Your task to perform on an android device: Search for Italian restaurants on Maps Image 0: 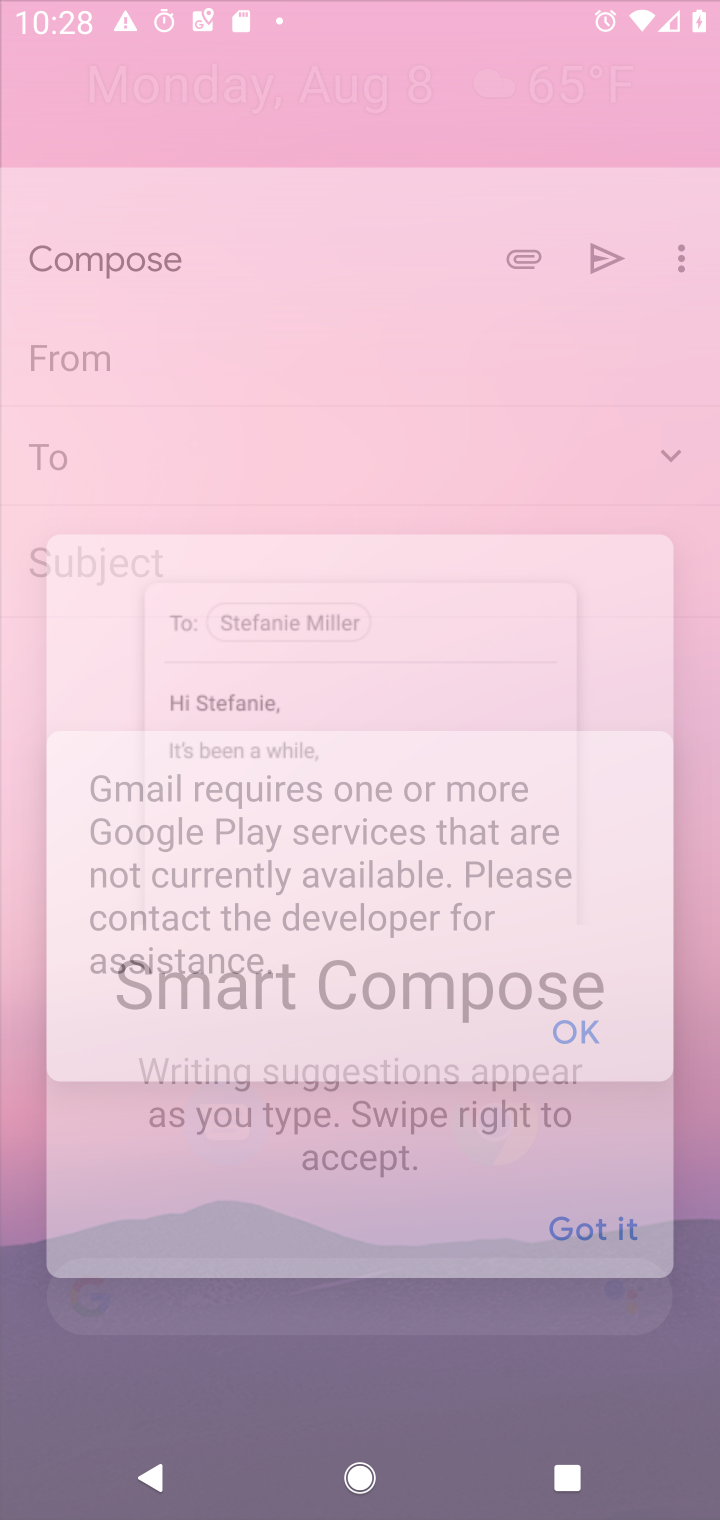
Step 0: press home button
Your task to perform on an android device: Search for Italian restaurants on Maps Image 1: 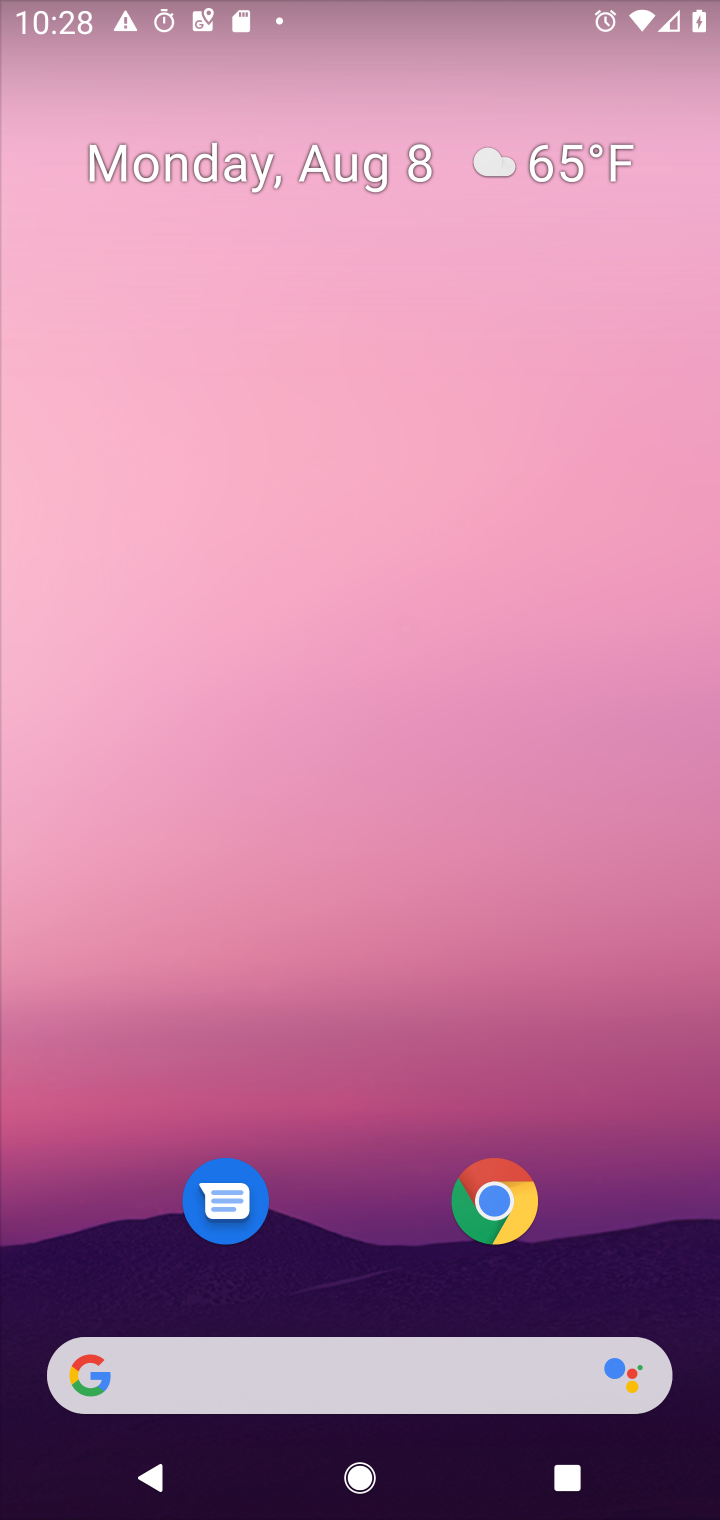
Step 1: drag from (378, 1249) to (421, 222)
Your task to perform on an android device: Search for Italian restaurants on Maps Image 2: 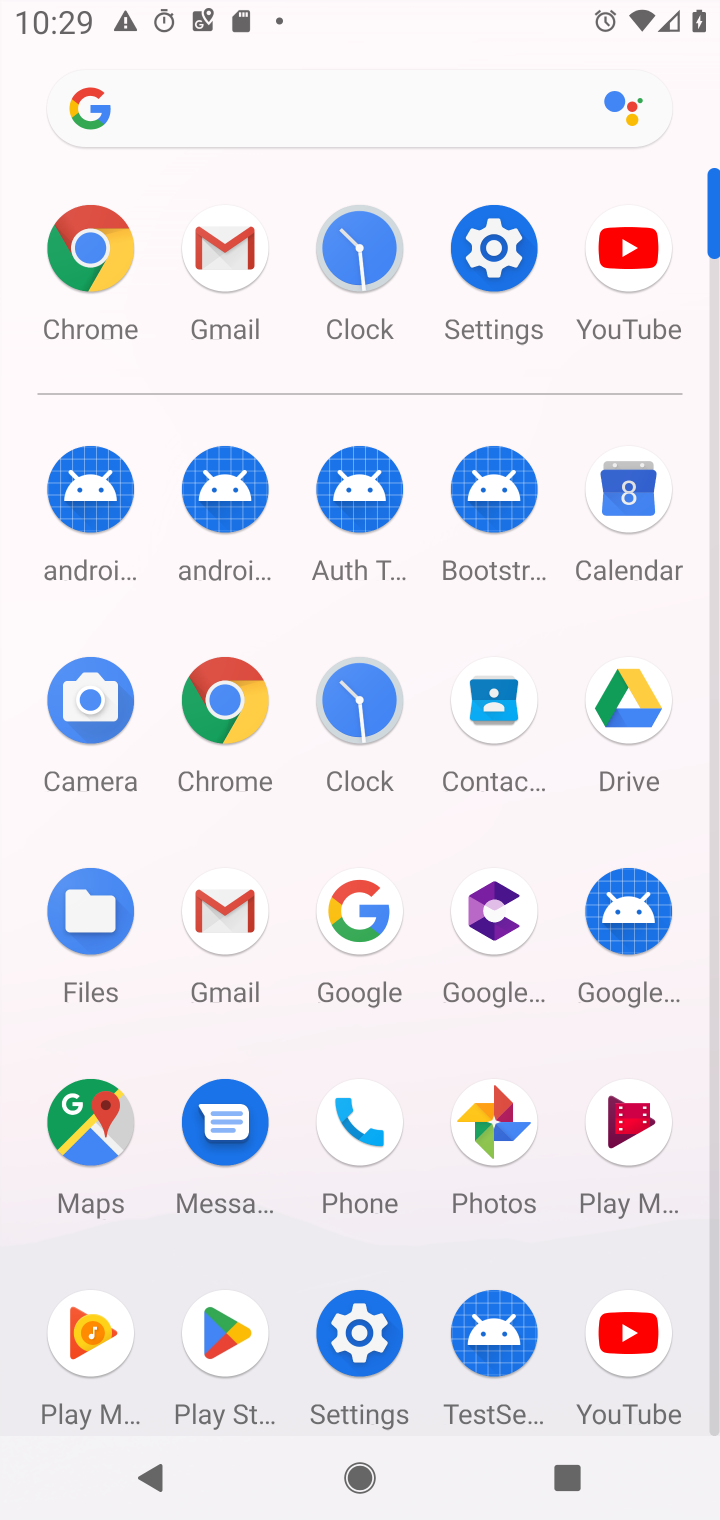
Step 2: click (92, 1148)
Your task to perform on an android device: Search for Italian restaurants on Maps Image 3: 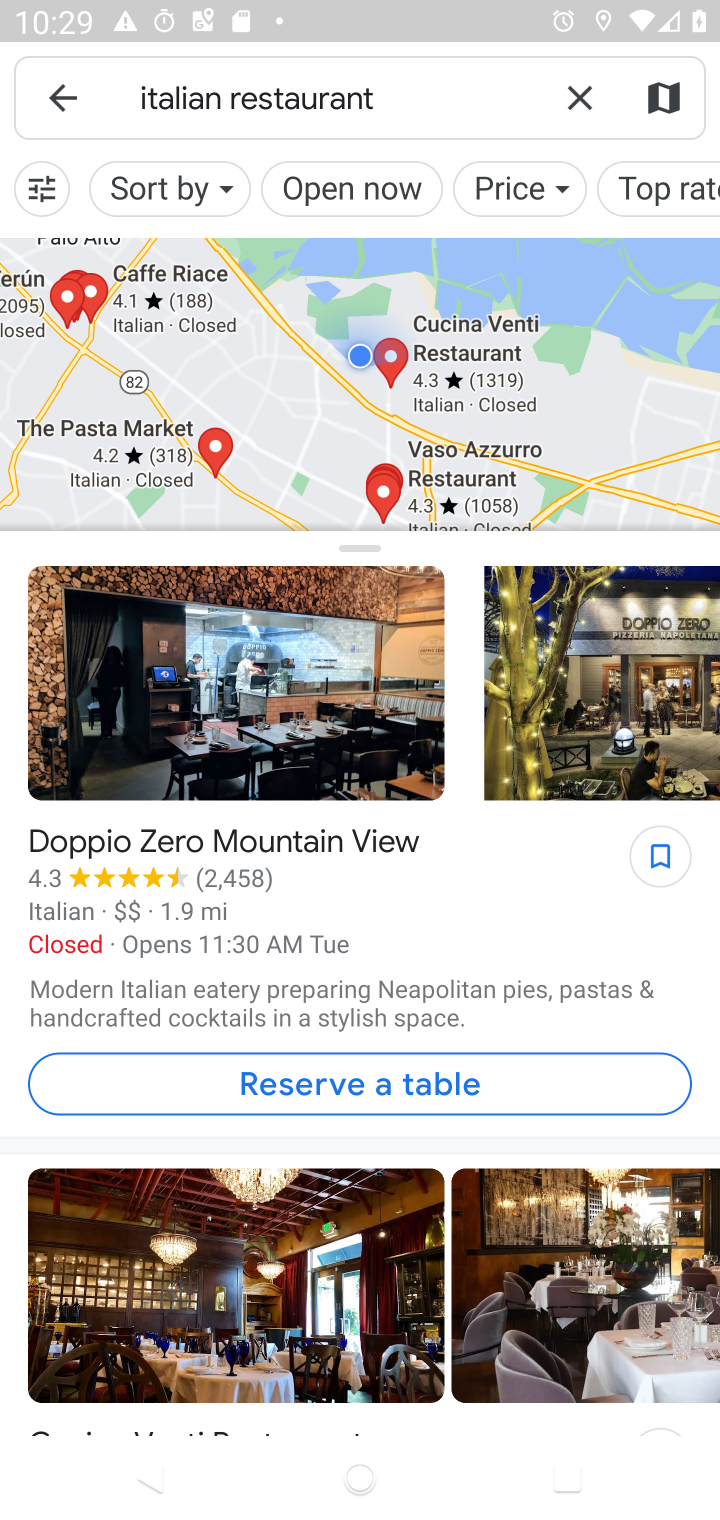
Step 3: task complete